Your task to perform on an android device: toggle improve location accuracy Image 0: 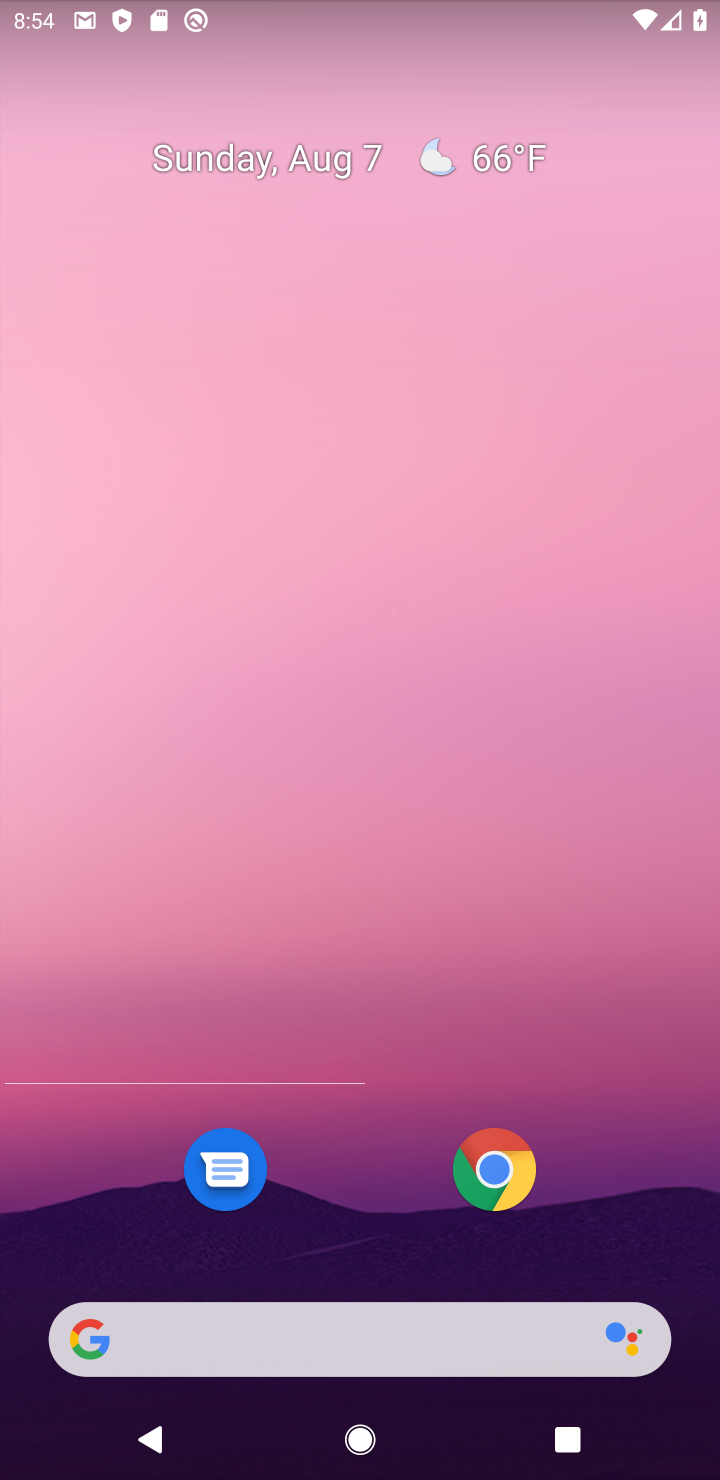
Step 0: press back button
Your task to perform on an android device: toggle improve location accuracy Image 1: 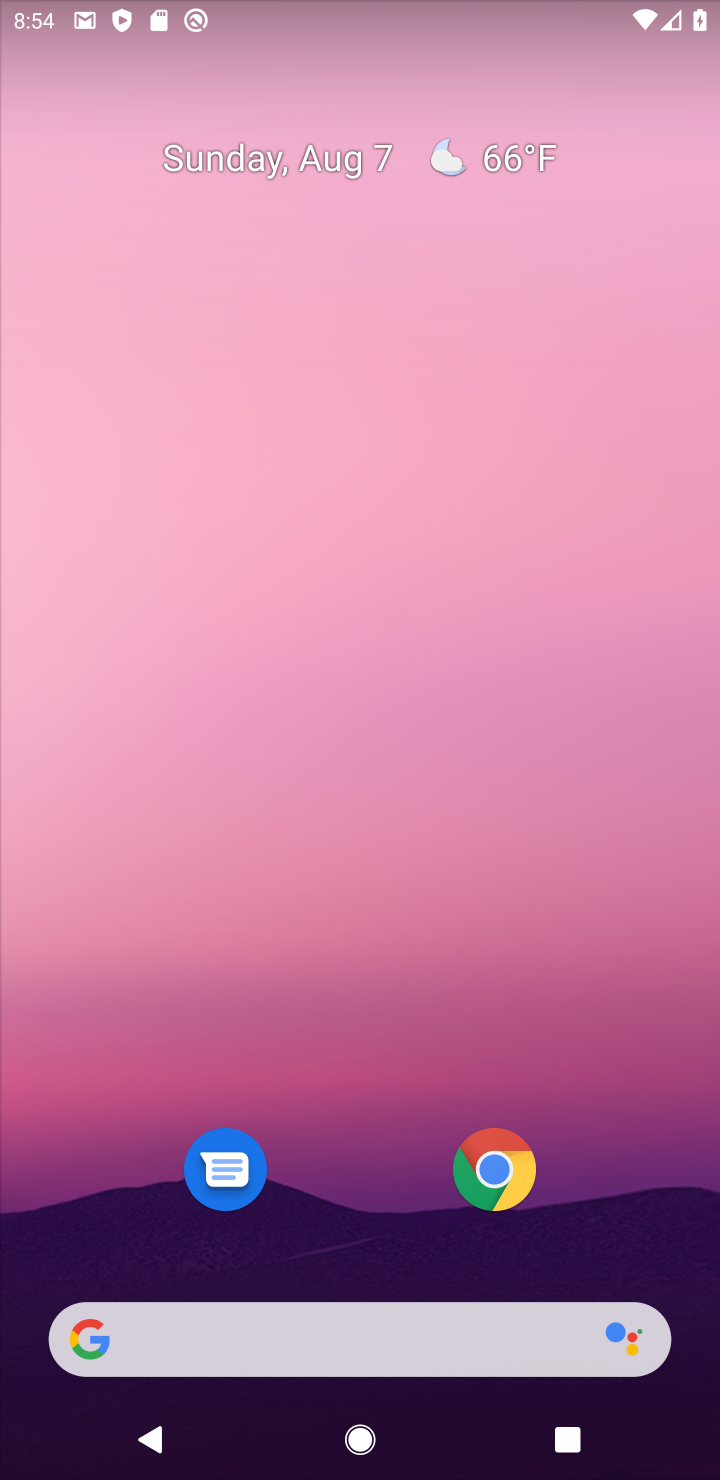
Step 1: press back button
Your task to perform on an android device: toggle improve location accuracy Image 2: 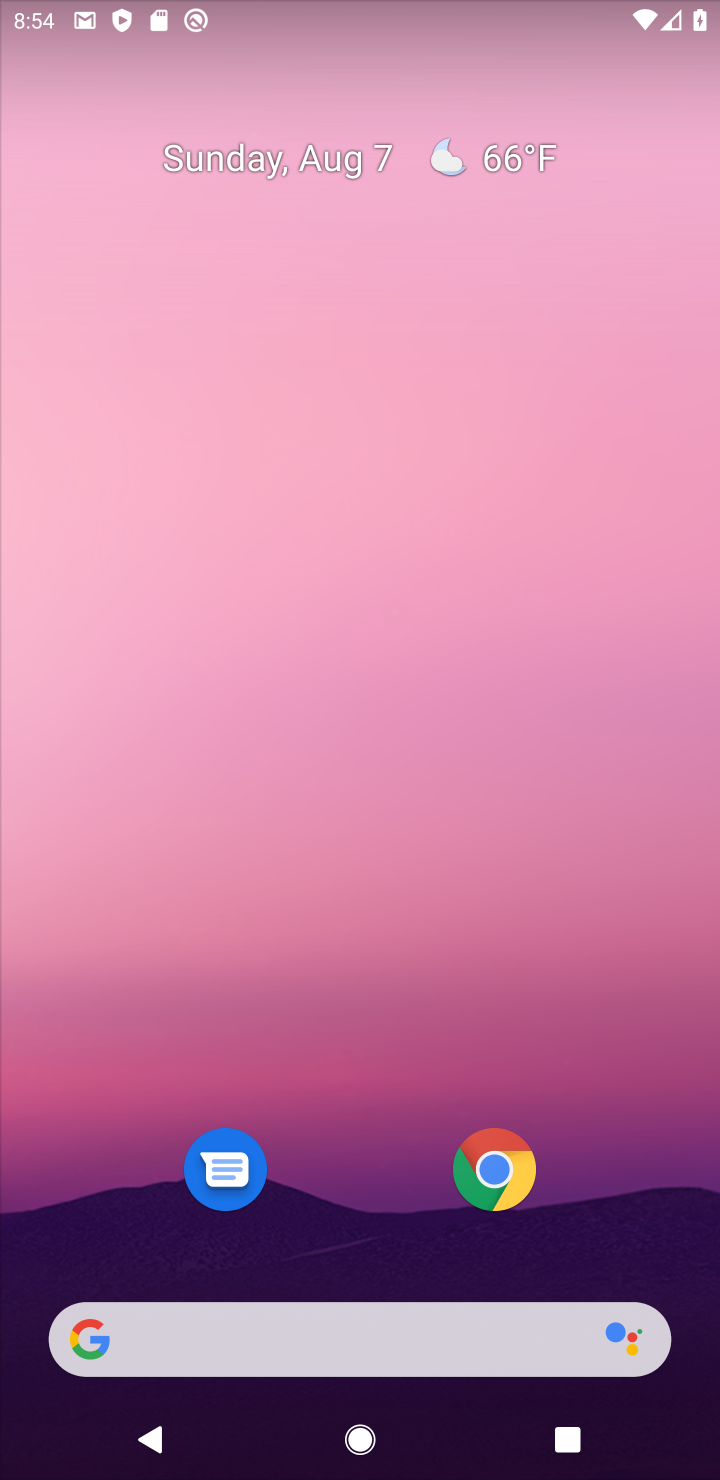
Step 2: drag from (334, 1106) to (219, 74)
Your task to perform on an android device: toggle improve location accuracy Image 3: 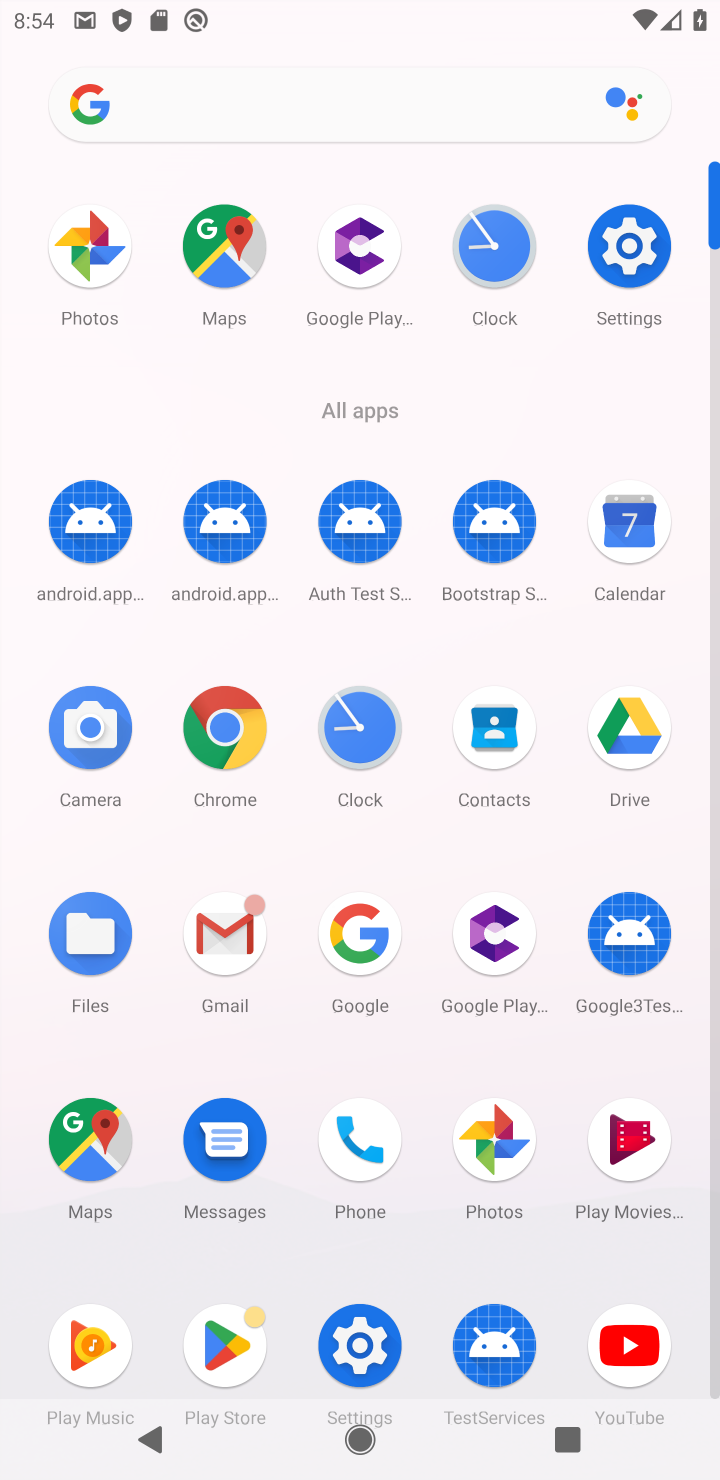
Step 3: click (601, 261)
Your task to perform on an android device: toggle improve location accuracy Image 4: 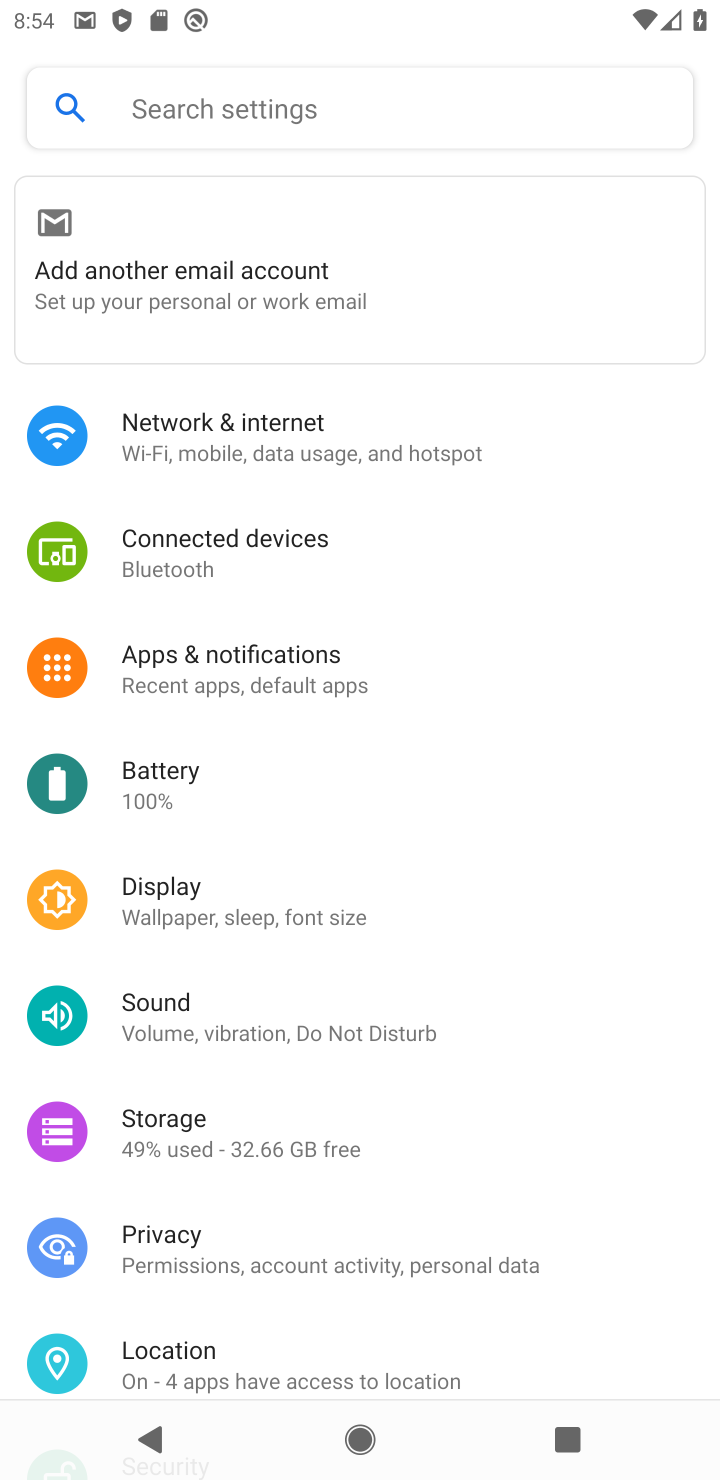
Step 4: click (219, 1350)
Your task to perform on an android device: toggle improve location accuracy Image 5: 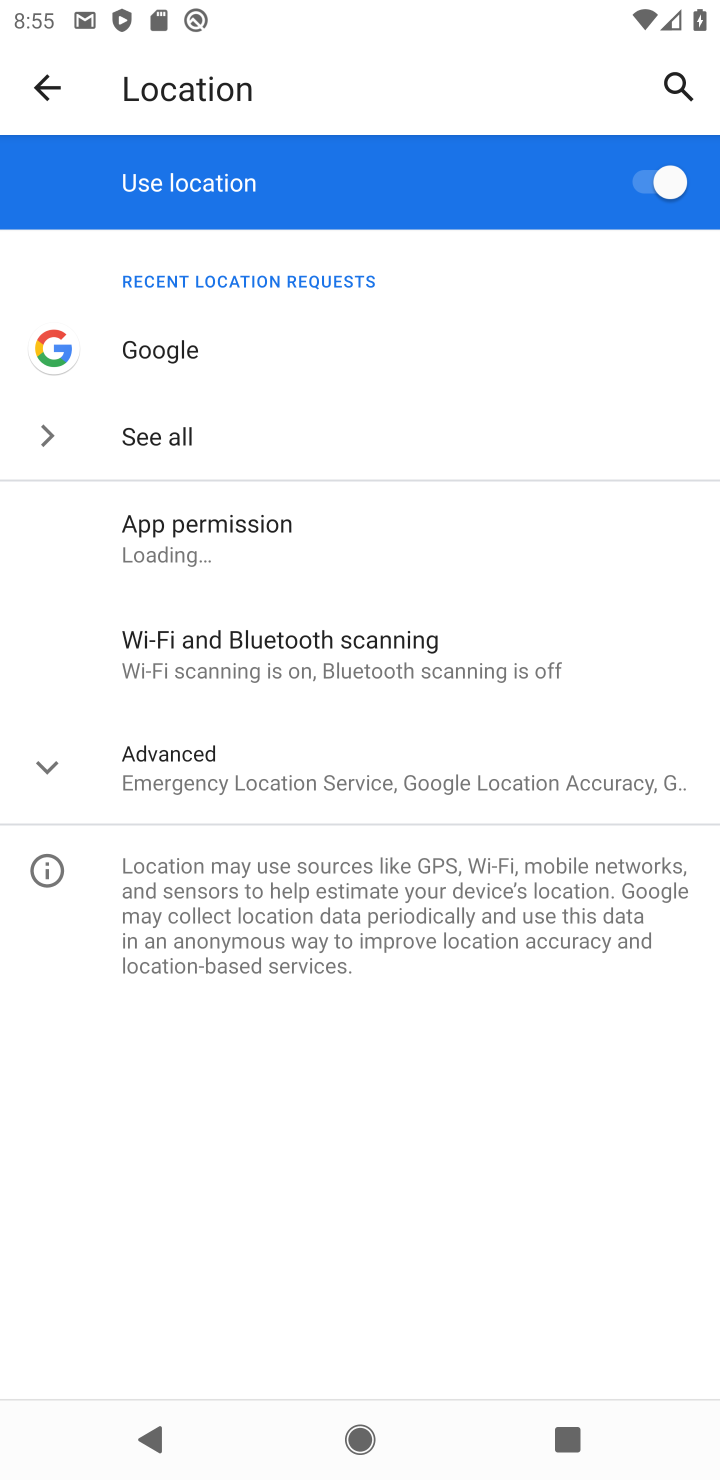
Step 5: drag from (199, 678) to (129, 194)
Your task to perform on an android device: toggle improve location accuracy Image 6: 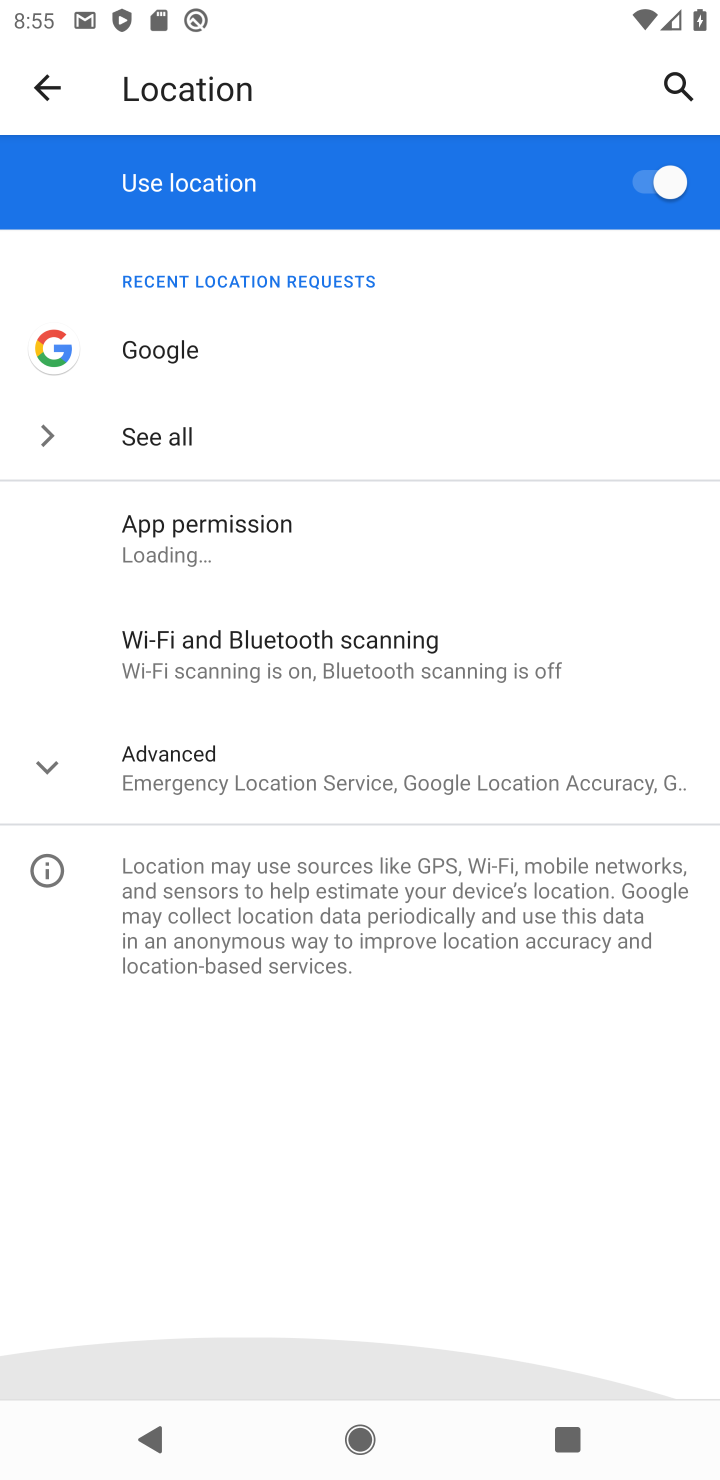
Step 6: click (161, 753)
Your task to perform on an android device: toggle improve location accuracy Image 7: 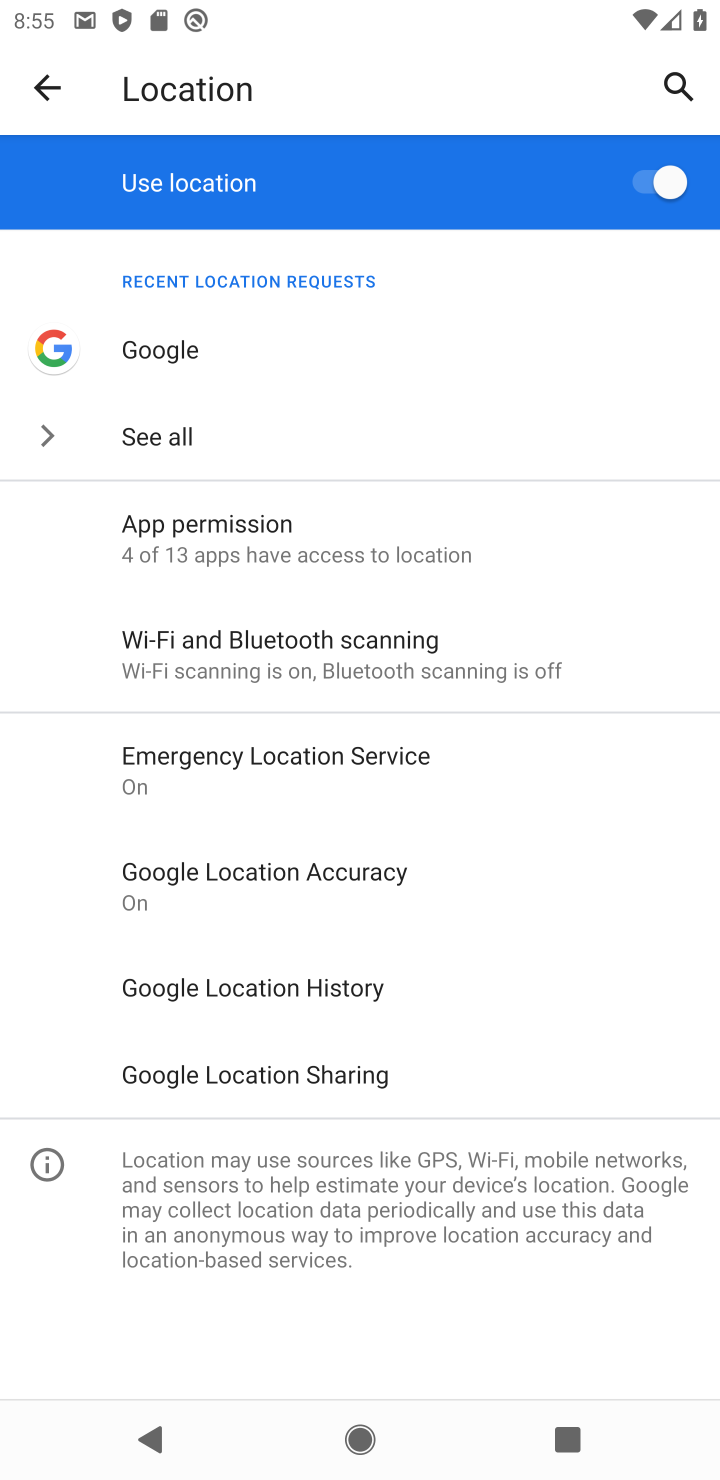
Step 7: click (271, 873)
Your task to perform on an android device: toggle improve location accuracy Image 8: 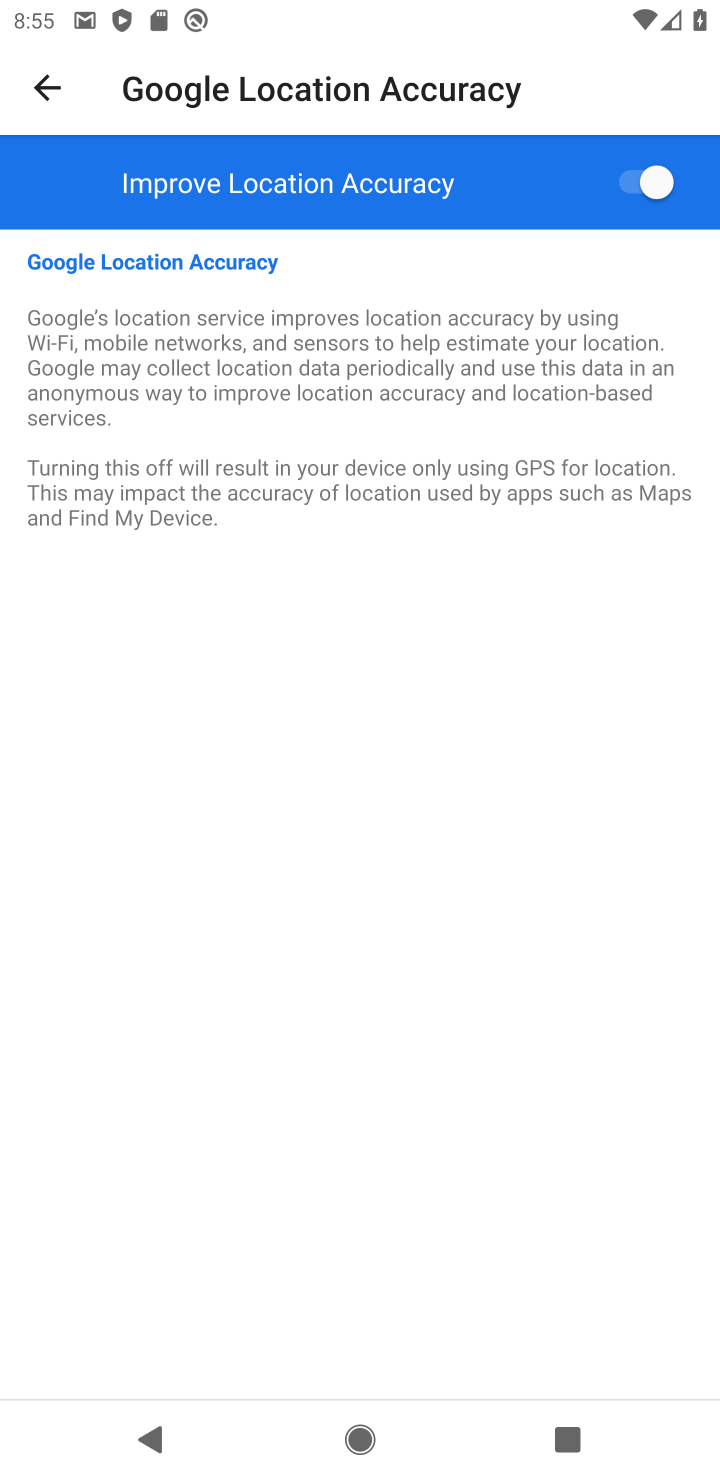
Step 8: click (612, 205)
Your task to perform on an android device: toggle improve location accuracy Image 9: 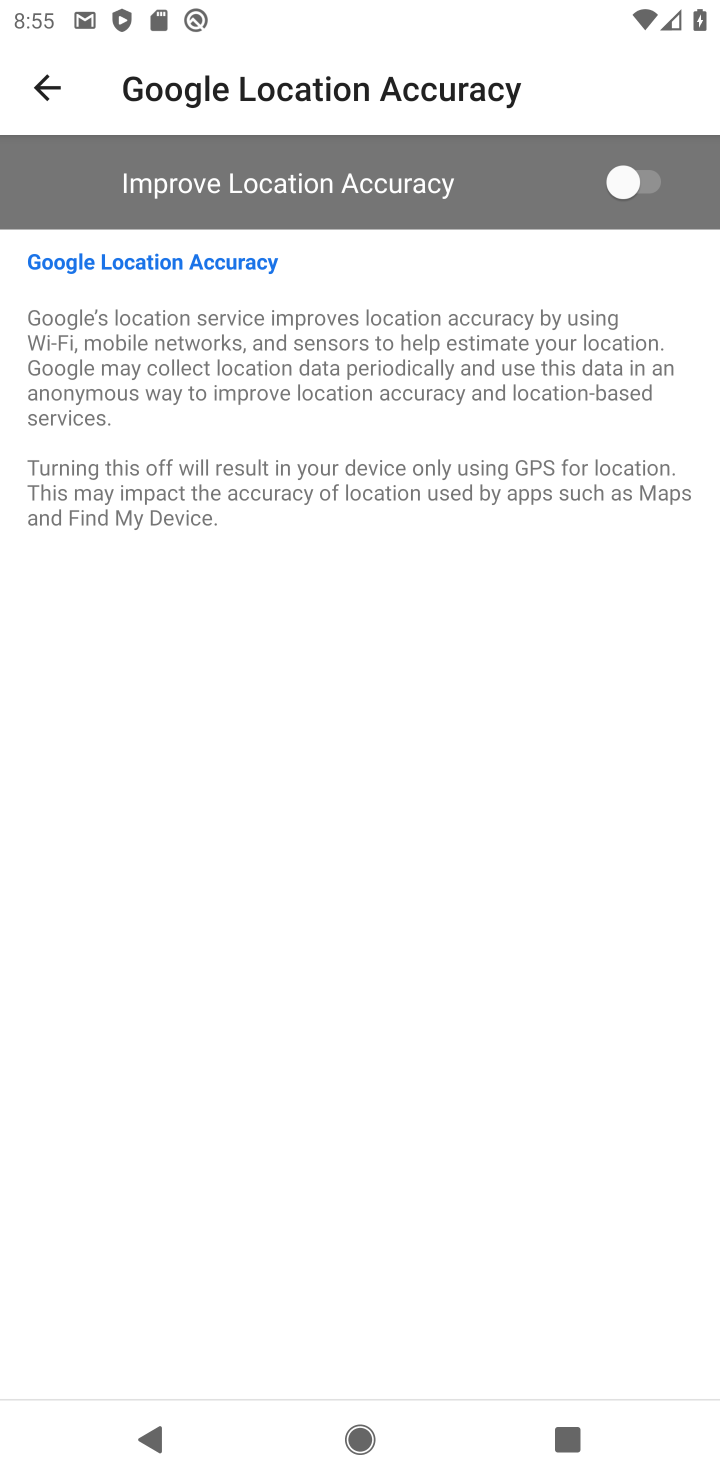
Step 9: task complete